Your task to perform on an android device: visit the assistant section in the google photos Image 0: 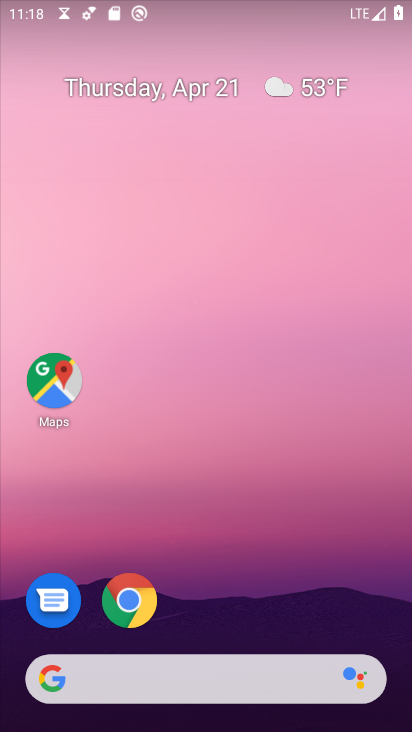
Step 0: drag from (250, 439) to (246, 29)
Your task to perform on an android device: visit the assistant section in the google photos Image 1: 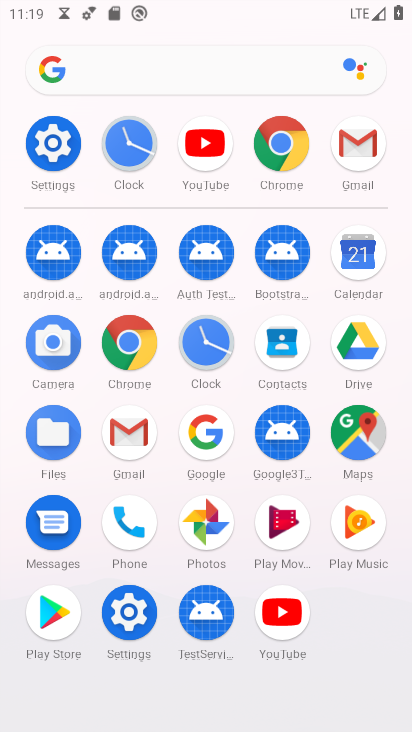
Step 1: click (211, 521)
Your task to perform on an android device: visit the assistant section in the google photos Image 2: 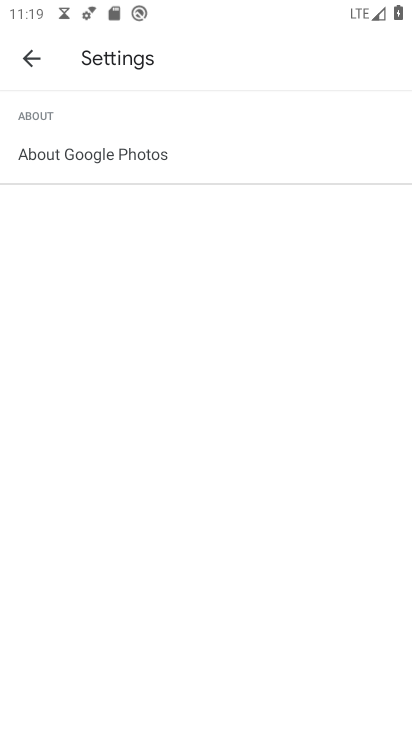
Step 2: click (27, 55)
Your task to perform on an android device: visit the assistant section in the google photos Image 3: 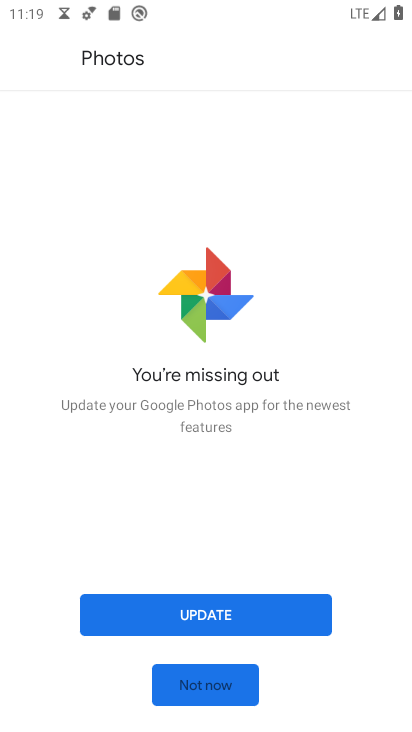
Step 3: click (245, 612)
Your task to perform on an android device: visit the assistant section in the google photos Image 4: 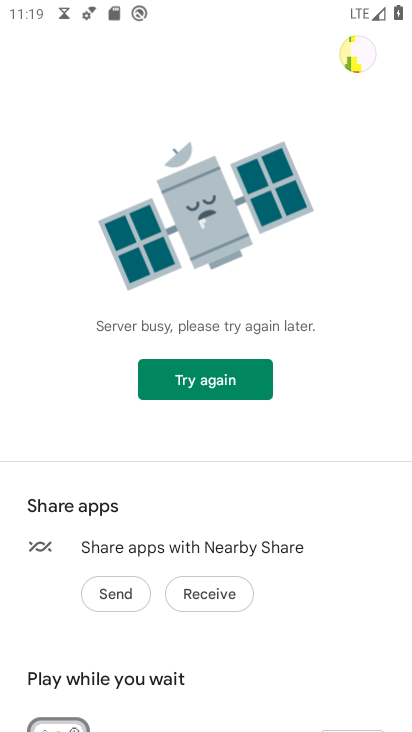
Step 4: click (226, 372)
Your task to perform on an android device: visit the assistant section in the google photos Image 5: 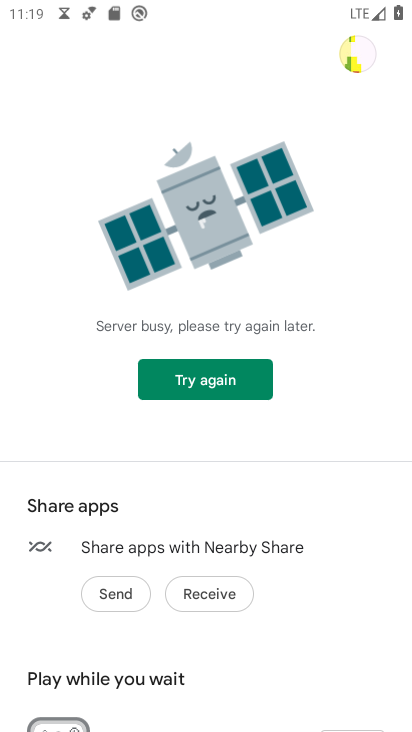
Step 5: task complete